Your task to perform on an android device: star an email in the gmail app Image 0: 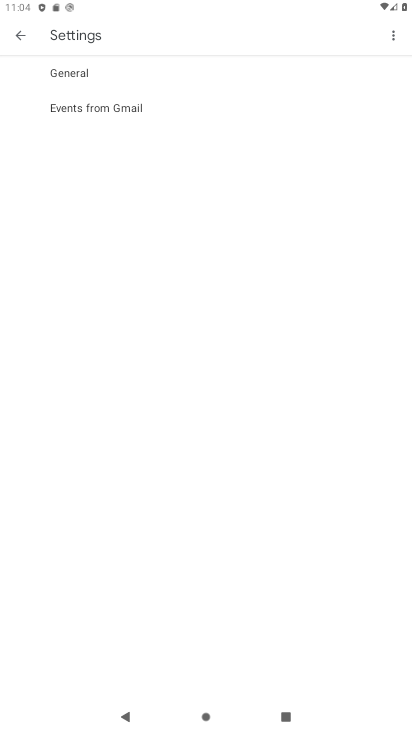
Step 0: press home button
Your task to perform on an android device: star an email in the gmail app Image 1: 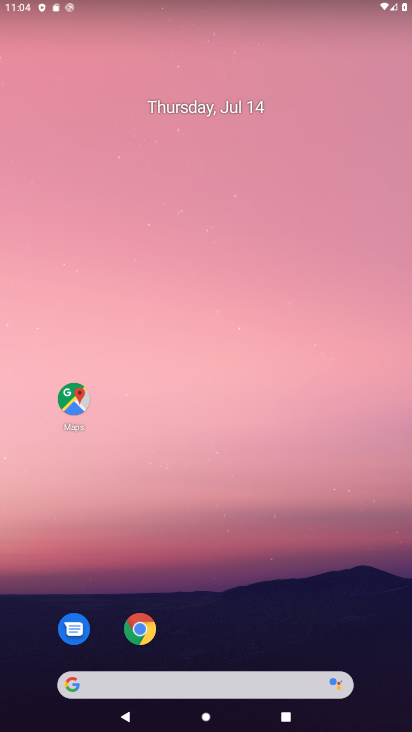
Step 1: drag from (225, 645) to (232, 3)
Your task to perform on an android device: star an email in the gmail app Image 2: 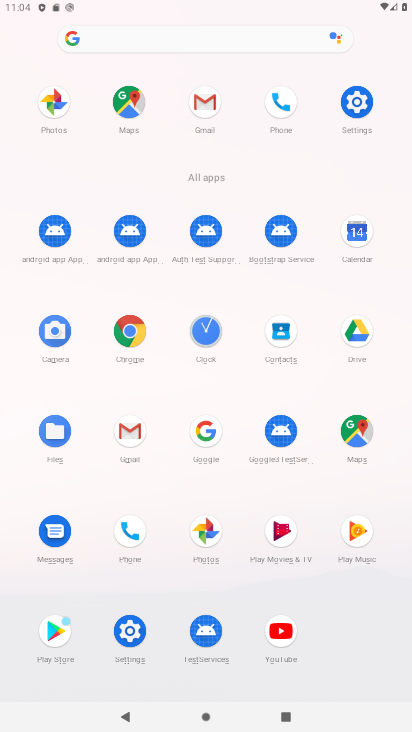
Step 2: click (137, 441)
Your task to perform on an android device: star an email in the gmail app Image 3: 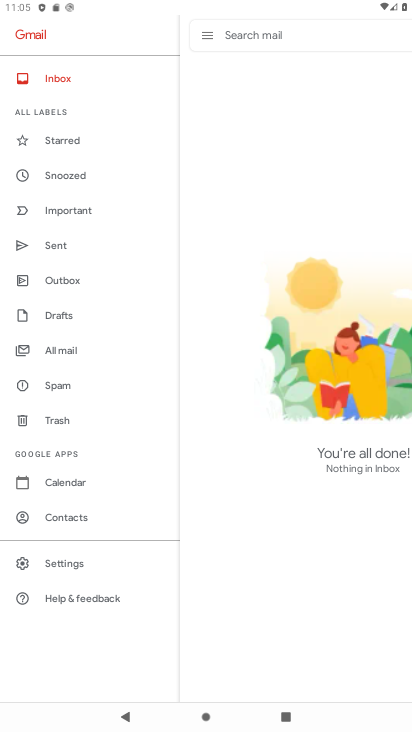
Step 3: click (61, 345)
Your task to perform on an android device: star an email in the gmail app Image 4: 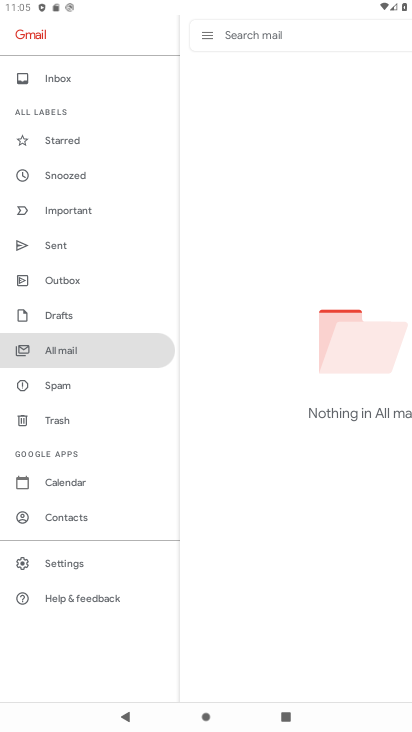
Step 4: task complete